Your task to perform on an android device: turn off notifications in google photos Image 0: 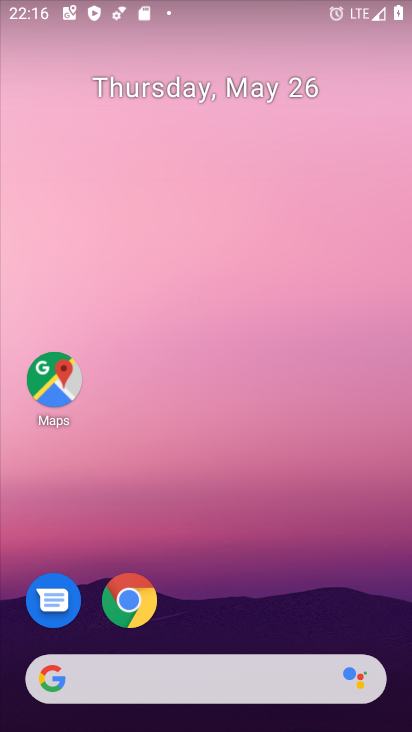
Step 0: drag from (239, 544) to (304, 87)
Your task to perform on an android device: turn off notifications in google photos Image 1: 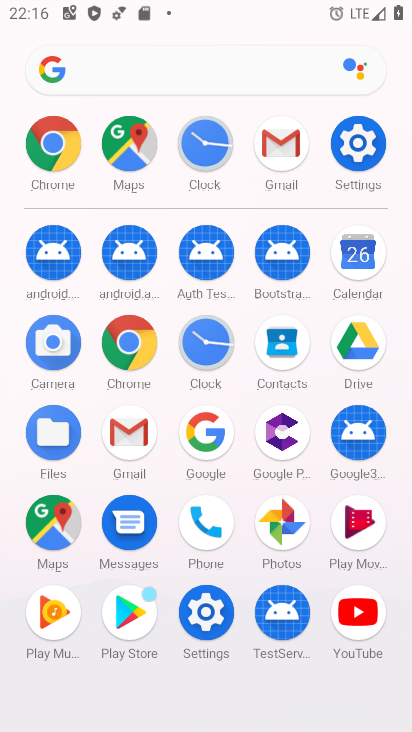
Step 1: click (298, 540)
Your task to perform on an android device: turn off notifications in google photos Image 2: 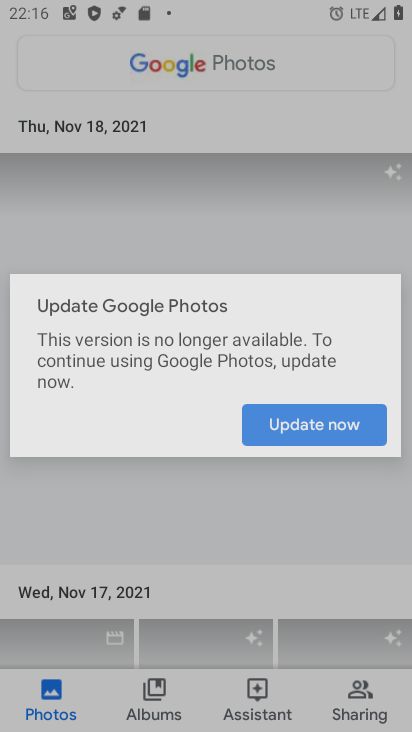
Step 2: click (291, 528)
Your task to perform on an android device: turn off notifications in google photos Image 3: 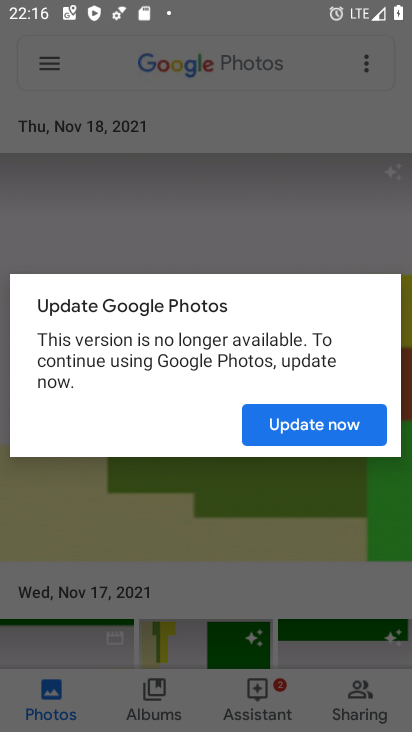
Step 3: click (322, 420)
Your task to perform on an android device: turn off notifications in google photos Image 4: 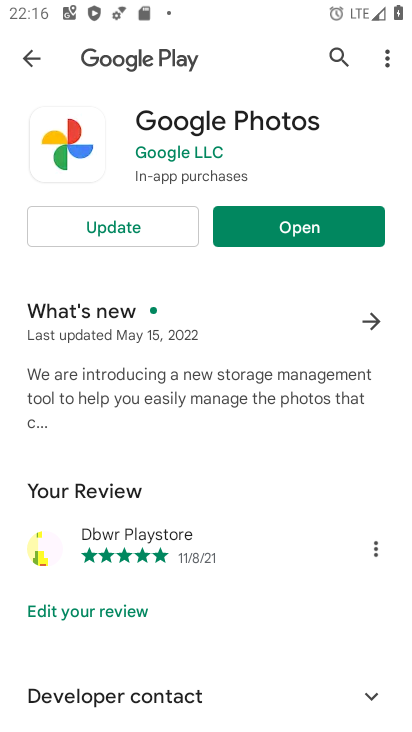
Step 4: click (99, 250)
Your task to perform on an android device: turn off notifications in google photos Image 5: 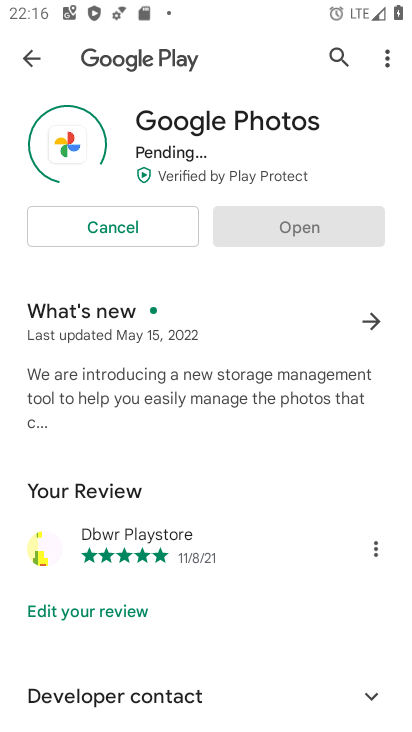
Step 5: task complete